Your task to perform on an android device: read, delete, or share a saved page in the chrome app Image 0: 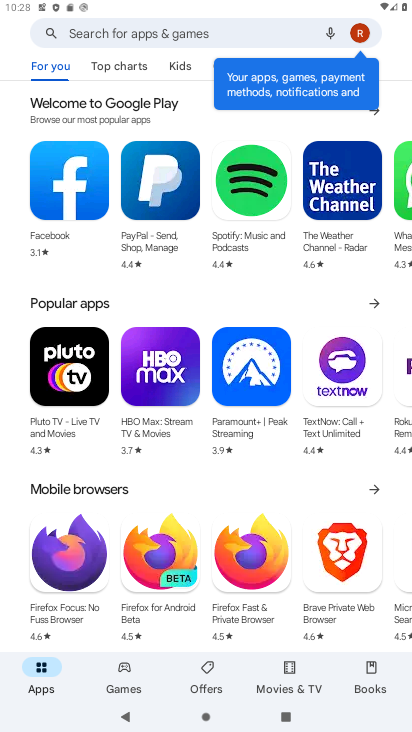
Step 0: press home button
Your task to perform on an android device: read, delete, or share a saved page in the chrome app Image 1: 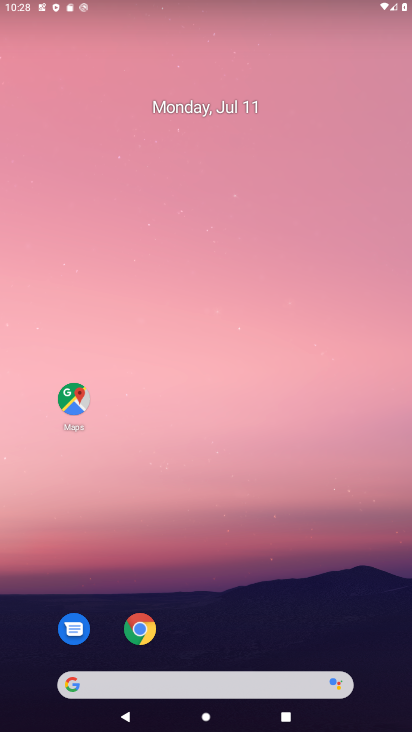
Step 1: click (133, 644)
Your task to perform on an android device: read, delete, or share a saved page in the chrome app Image 2: 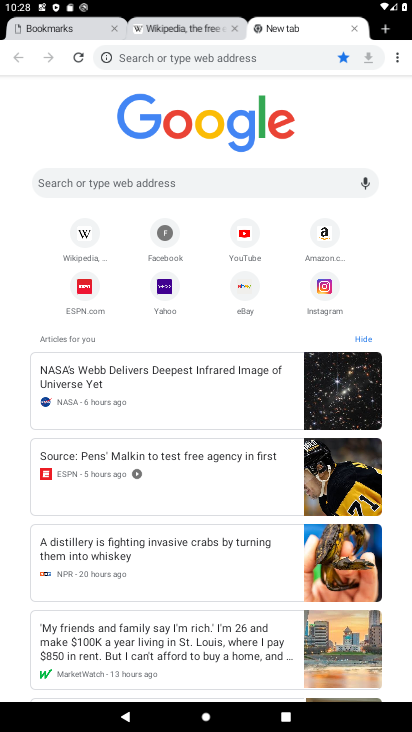
Step 2: click (392, 57)
Your task to perform on an android device: read, delete, or share a saved page in the chrome app Image 3: 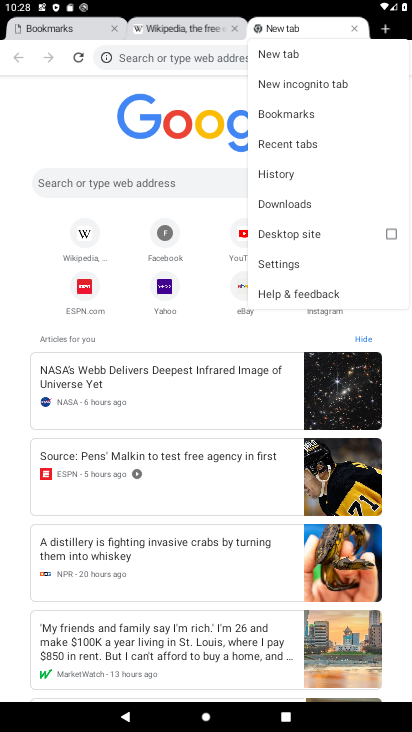
Step 3: click (338, 193)
Your task to perform on an android device: read, delete, or share a saved page in the chrome app Image 4: 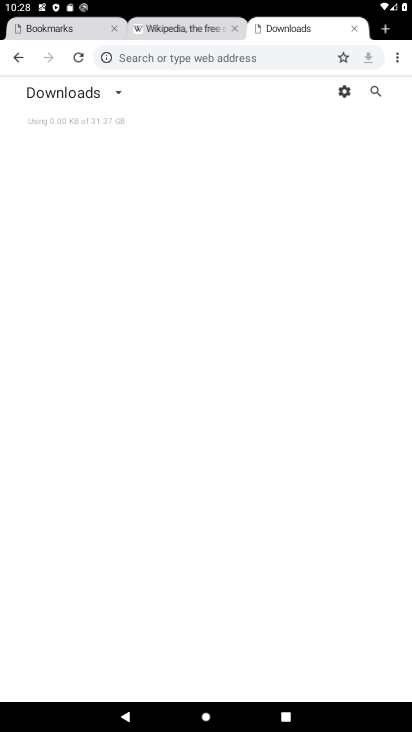
Step 4: click (109, 98)
Your task to perform on an android device: read, delete, or share a saved page in the chrome app Image 5: 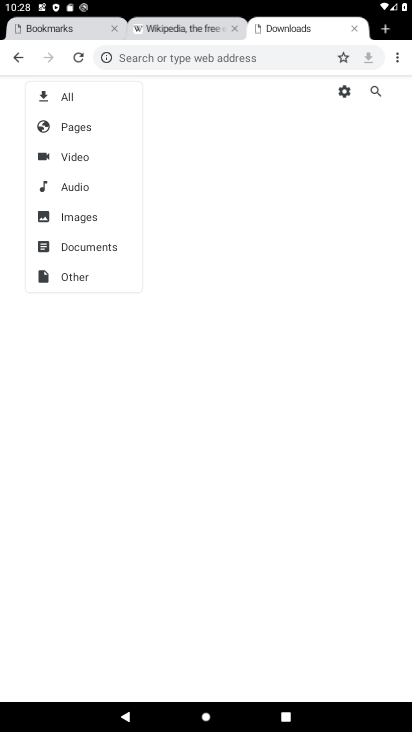
Step 5: click (83, 118)
Your task to perform on an android device: read, delete, or share a saved page in the chrome app Image 6: 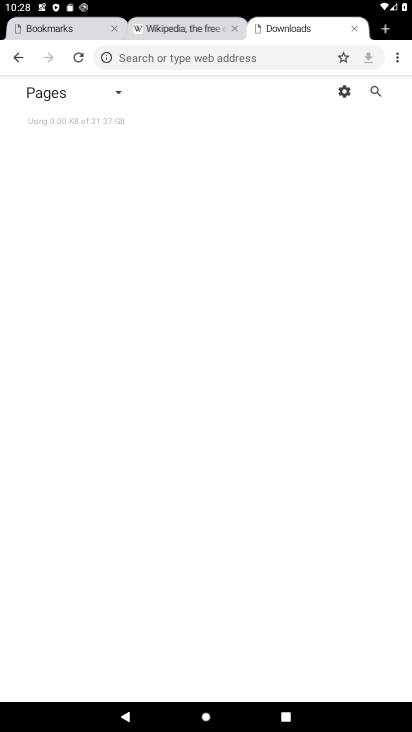
Step 6: task complete